Your task to perform on an android device: turn off location history Image 0: 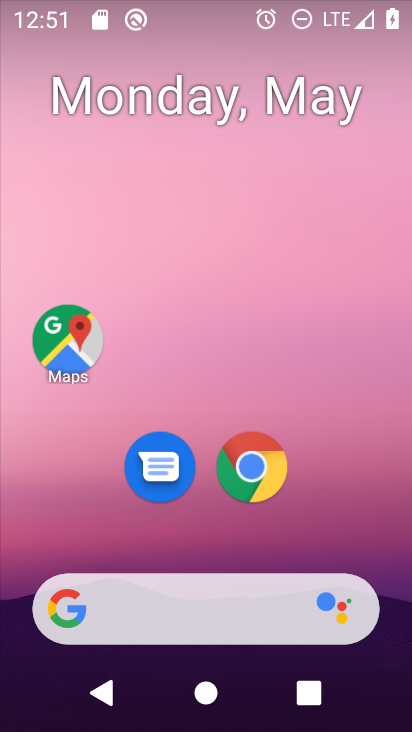
Step 0: click (71, 341)
Your task to perform on an android device: turn off location history Image 1: 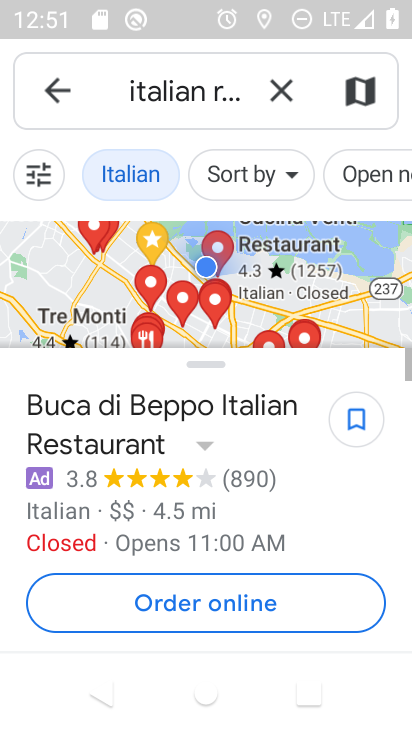
Step 1: click (280, 88)
Your task to perform on an android device: turn off location history Image 2: 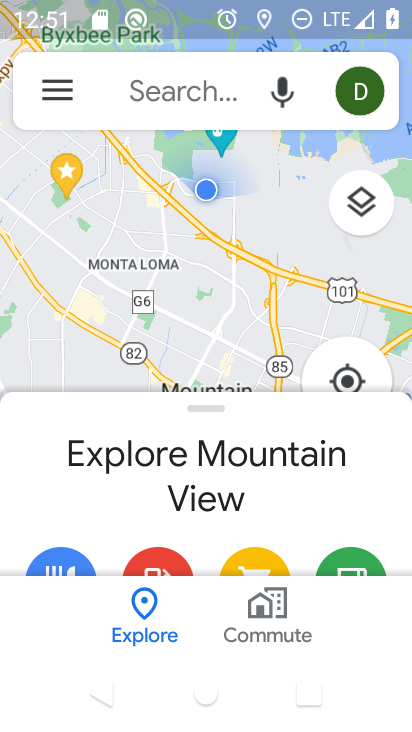
Step 2: click (49, 95)
Your task to perform on an android device: turn off location history Image 3: 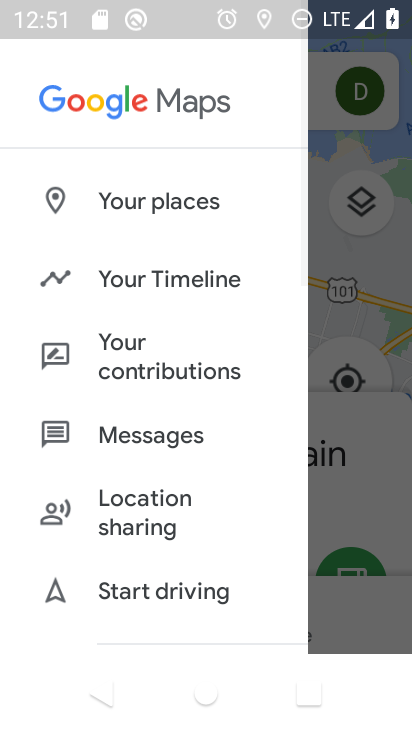
Step 3: click (92, 275)
Your task to perform on an android device: turn off location history Image 4: 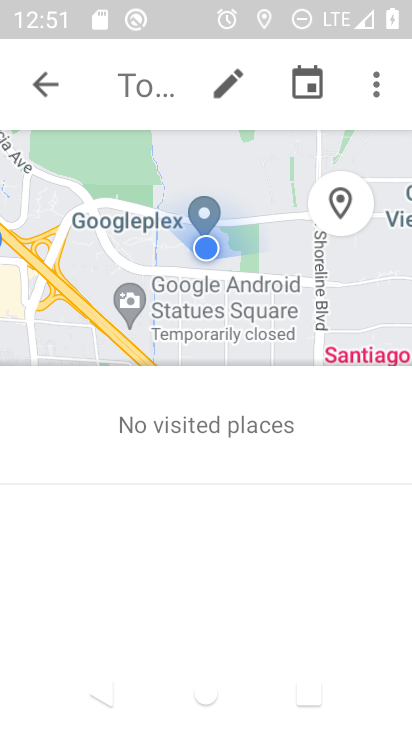
Step 4: click (377, 90)
Your task to perform on an android device: turn off location history Image 5: 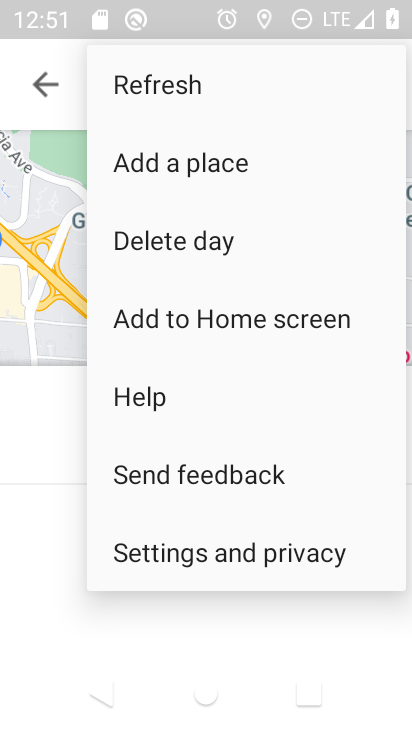
Step 5: click (185, 552)
Your task to perform on an android device: turn off location history Image 6: 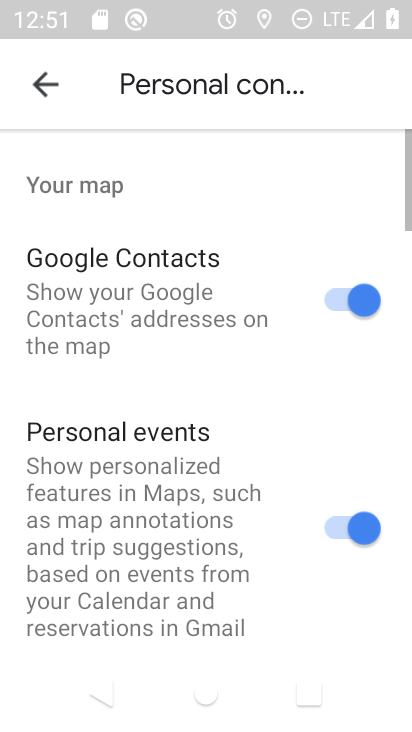
Step 6: drag from (185, 552) to (215, 12)
Your task to perform on an android device: turn off location history Image 7: 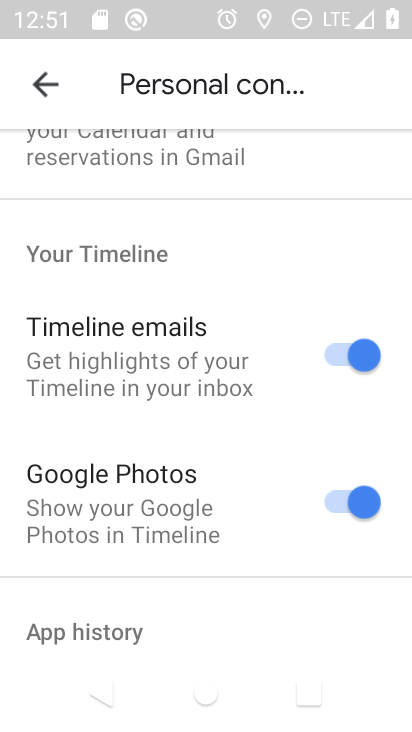
Step 7: drag from (157, 514) to (183, 10)
Your task to perform on an android device: turn off location history Image 8: 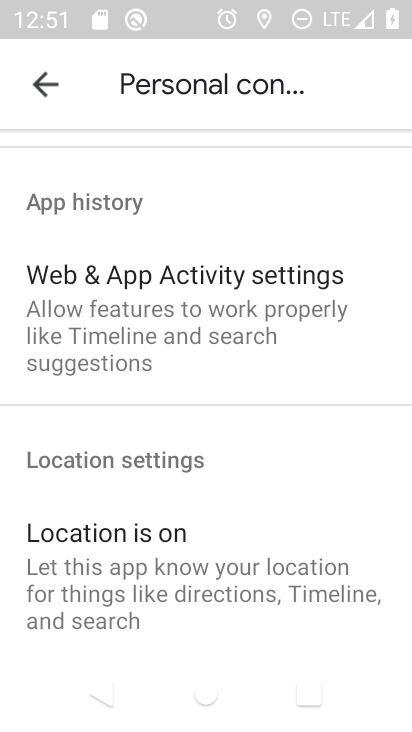
Step 8: drag from (180, 514) to (182, 72)
Your task to perform on an android device: turn off location history Image 9: 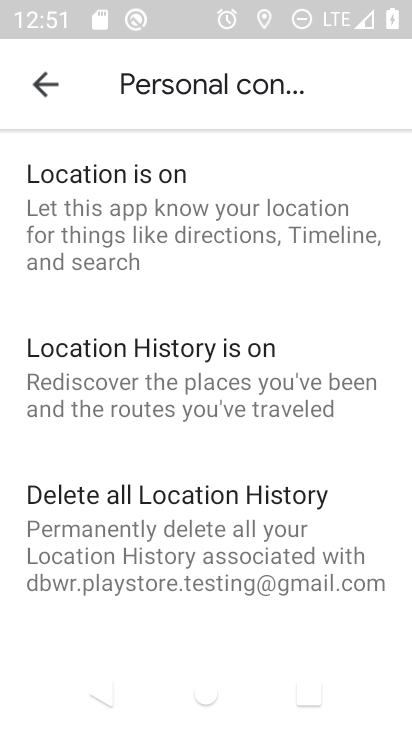
Step 9: click (139, 362)
Your task to perform on an android device: turn off location history Image 10: 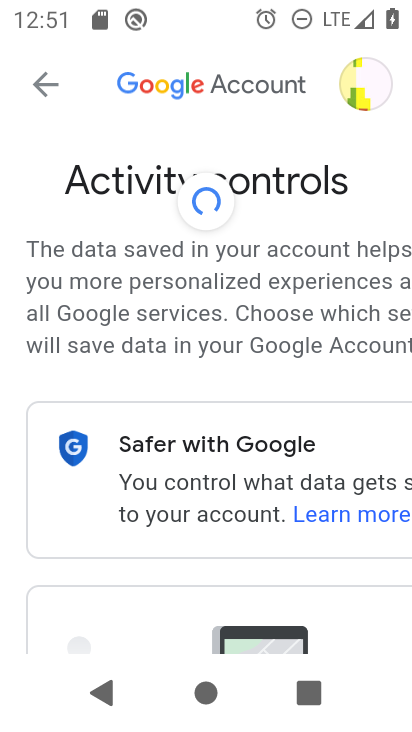
Step 10: drag from (230, 461) to (212, 109)
Your task to perform on an android device: turn off location history Image 11: 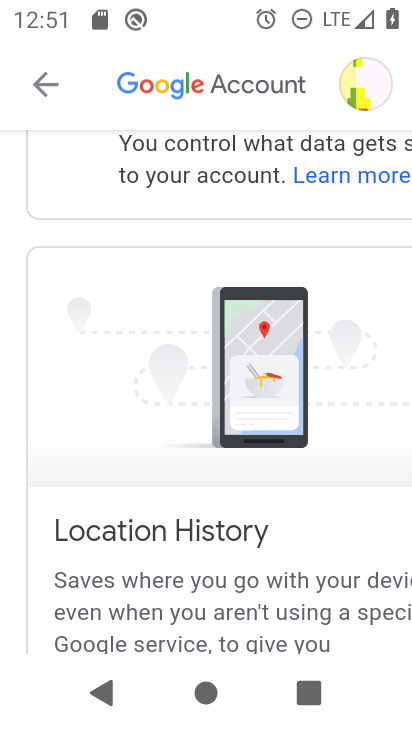
Step 11: drag from (190, 498) to (184, 116)
Your task to perform on an android device: turn off location history Image 12: 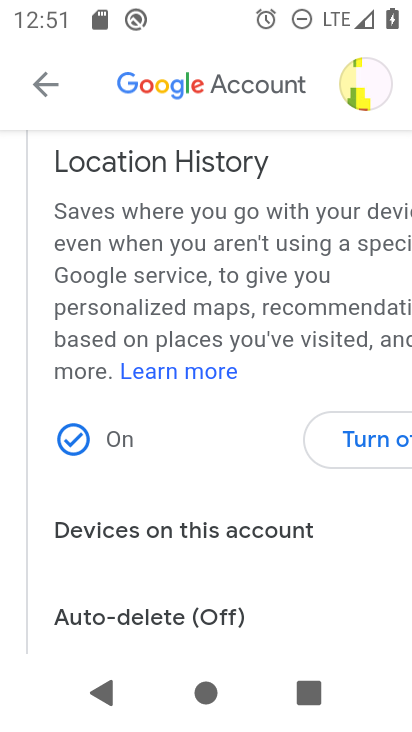
Step 12: click (383, 441)
Your task to perform on an android device: turn off location history Image 13: 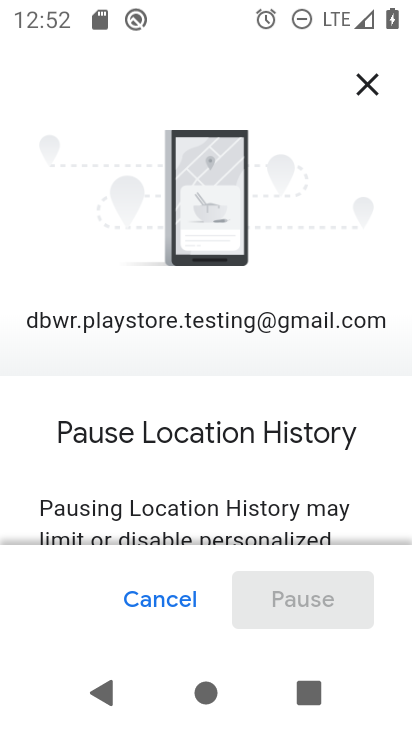
Step 13: drag from (228, 502) to (214, 74)
Your task to perform on an android device: turn off location history Image 14: 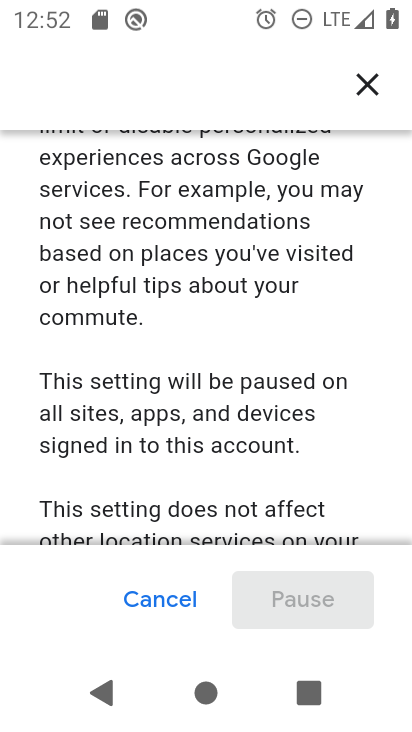
Step 14: drag from (169, 486) to (191, 98)
Your task to perform on an android device: turn off location history Image 15: 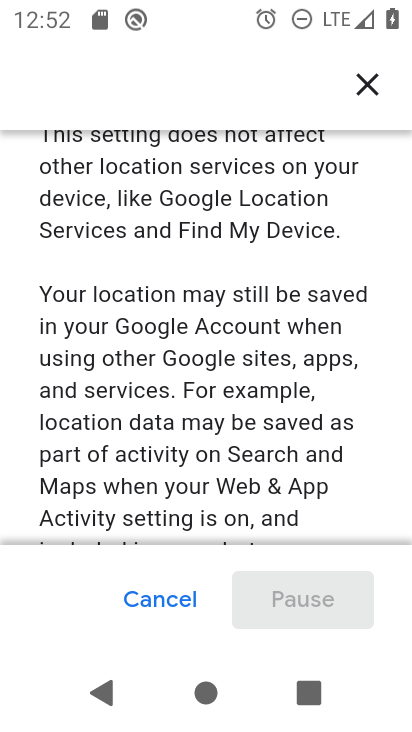
Step 15: drag from (174, 520) to (190, 85)
Your task to perform on an android device: turn off location history Image 16: 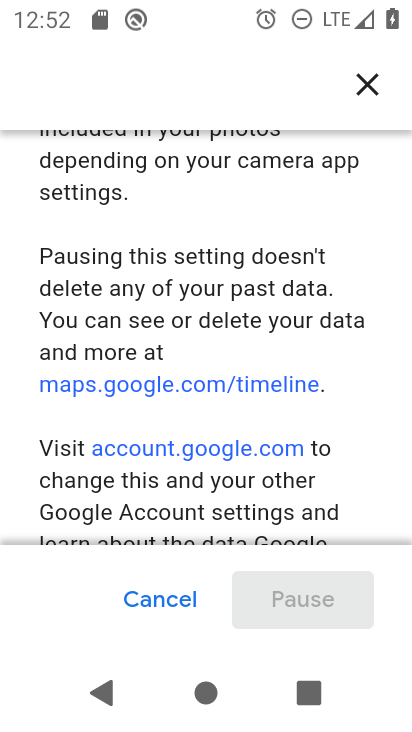
Step 16: drag from (176, 506) to (194, 120)
Your task to perform on an android device: turn off location history Image 17: 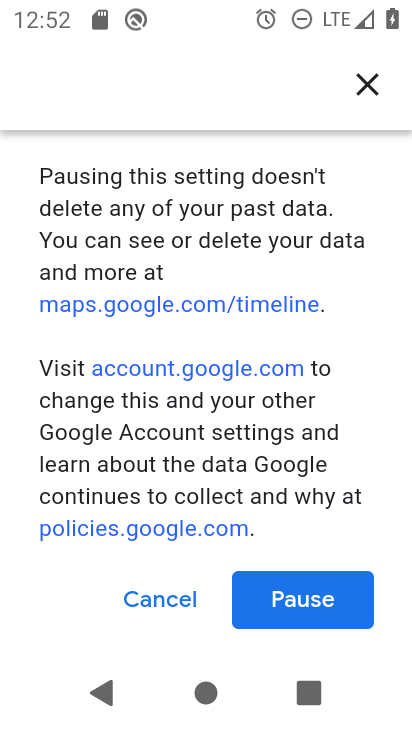
Step 17: click (284, 602)
Your task to perform on an android device: turn off location history Image 18: 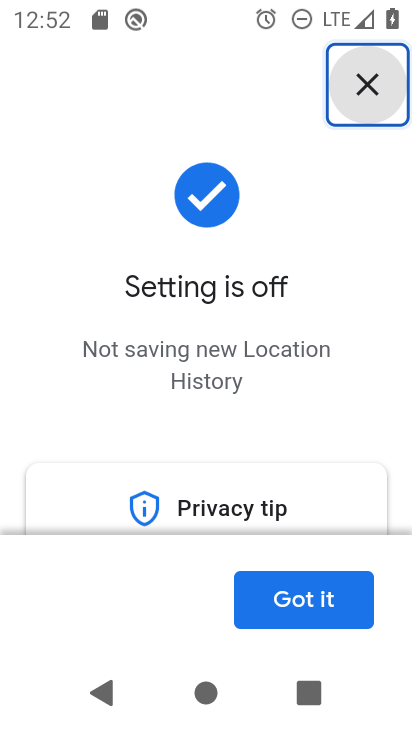
Step 18: click (315, 606)
Your task to perform on an android device: turn off location history Image 19: 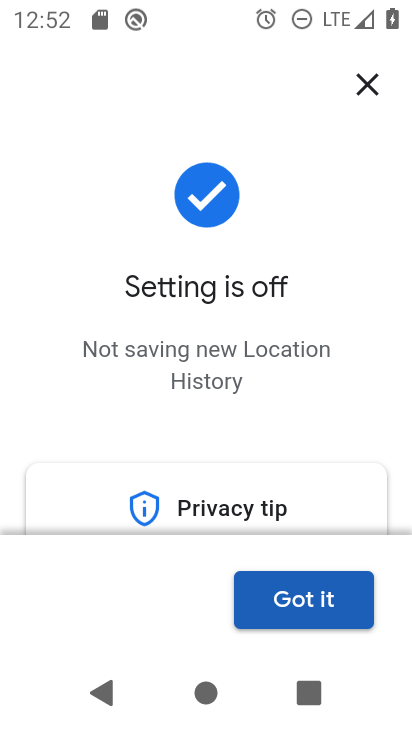
Step 19: click (311, 604)
Your task to perform on an android device: turn off location history Image 20: 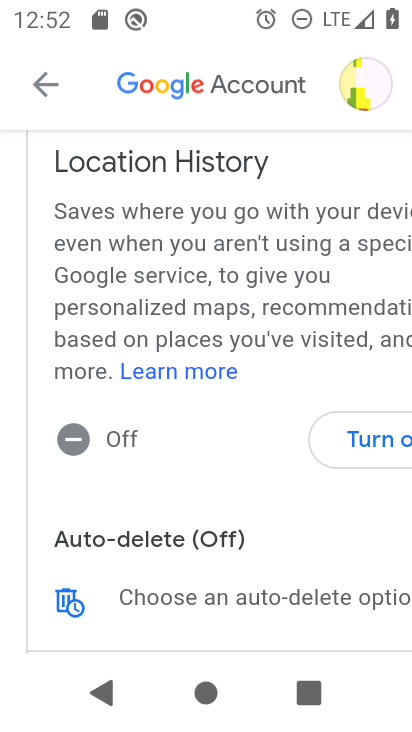
Step 20: task complete